Your task to perform on an android device: toggle sleep mode Image 0: 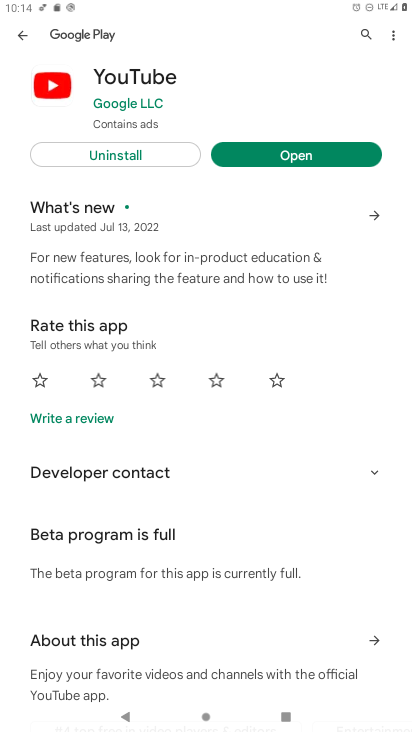
Step 0: press home button
Your task to perform on an android device: toggle sleep mode Image 1: 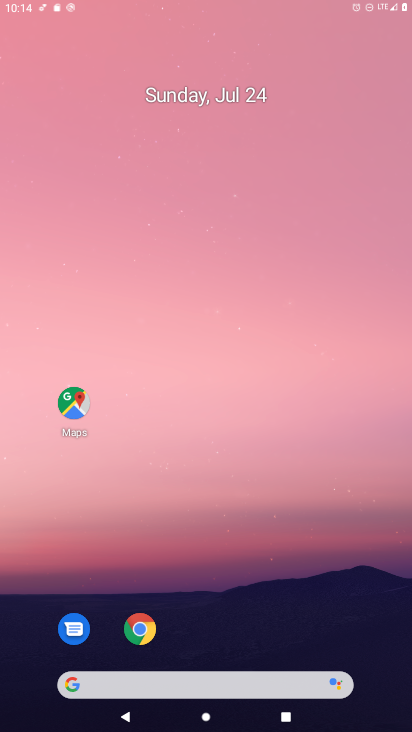
Step 1: drag from (371, 688) to (31, 68)
Your task to perform on an android device: toggle sleep mode Image 2: 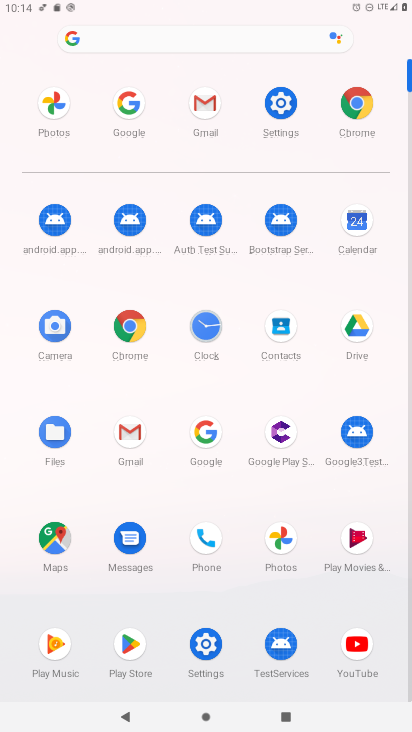
Step 2: click (201, 641)
Your task to perform on an android device: toggle sleep mode Image 3: 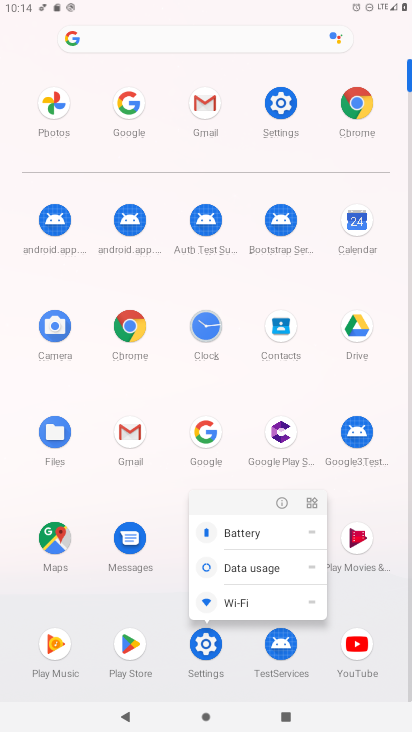
Step 3: click (201, 641)
Your task to perform on an android device: toggle sleep mode Image 4: 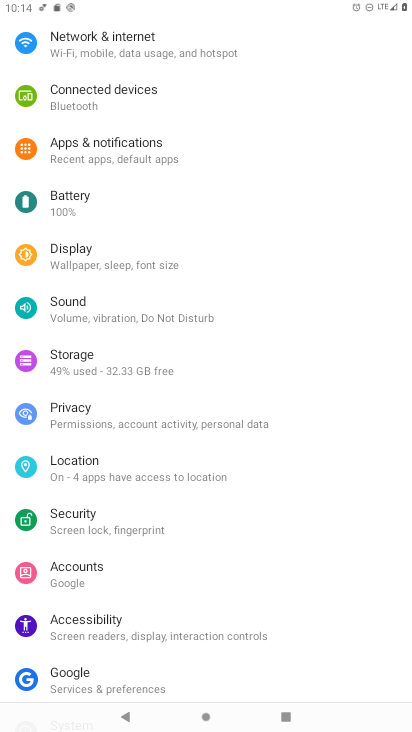
Step 4: task complete